Your task to perform on an android device: Go to internet settings Image 0: 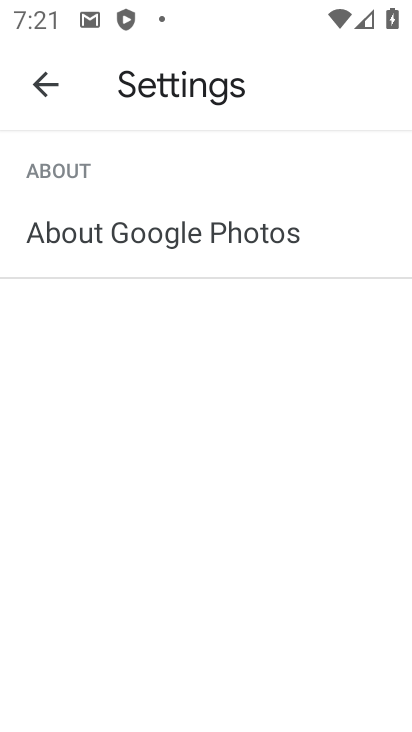
Step 0: press home button
Your task to perform on an android device: Go to internet settings Image 1: 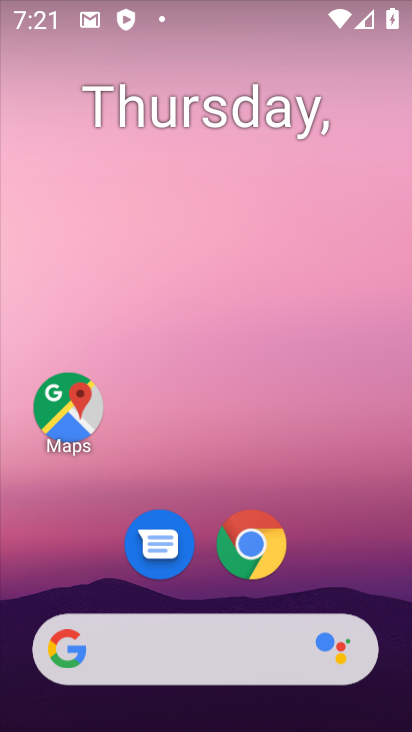
Step 1: drag from (235, 338) to (234, 11)
Your task to perform on an android device: Go to internet settings Image 2: 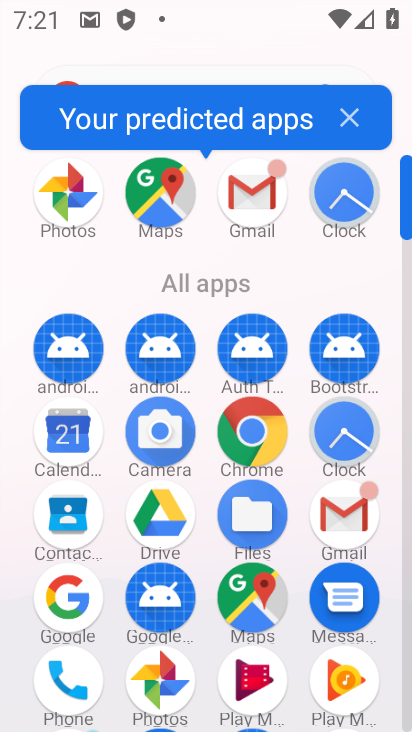
Step 2: drag from (109, 545) to (125, 212)
Your task to perform on an android device: Go to internet settings Image 3: 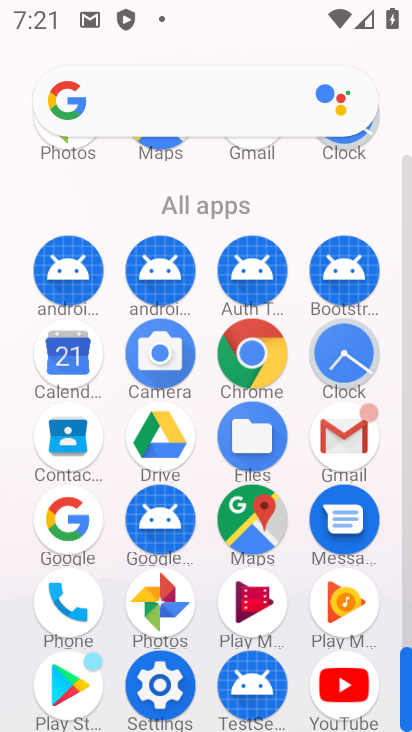
Step 3: click (155, 676)
Your task to perform on an android device: Go to internet settings Image 4: 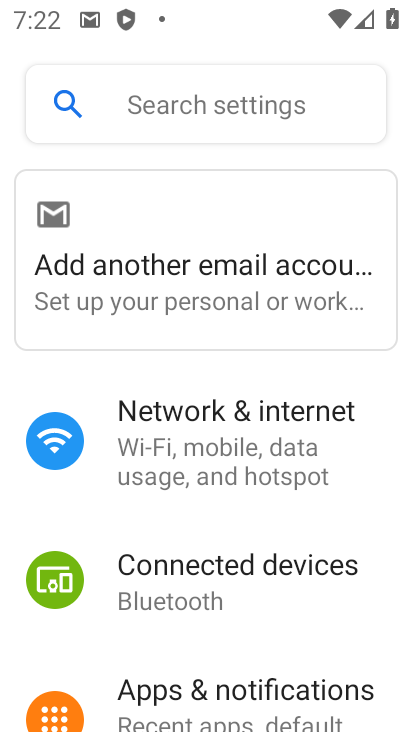
Step 4: click (206, 411)
Your task to perform on an android device: Go to internet settings Image 5: 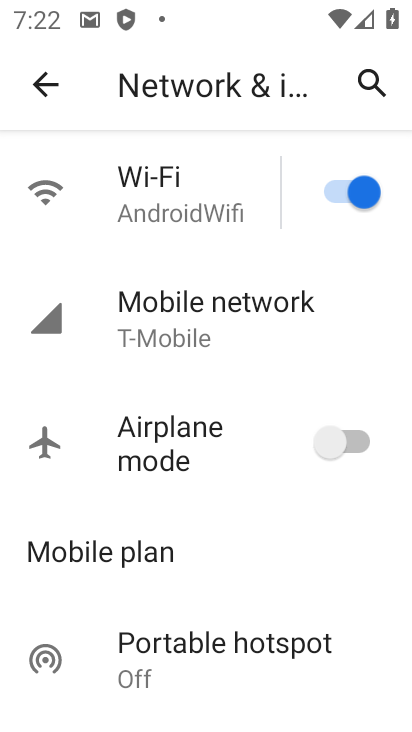
Step 5: task complete